Your task to perform on an android device: open app "Adobe Acrobat Reader: Edit PDF" (install if not already installed) Image 0: 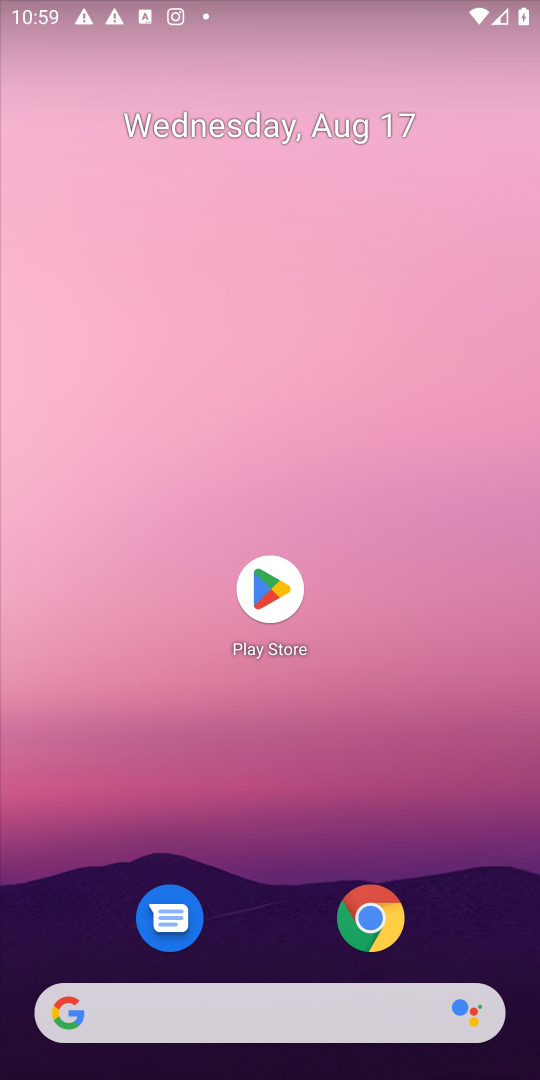
Step 0: press home button
Your task to perform on an android device: open app "Adobe Acrobat Reader: Edit PDF" (install if not already installed) Image 1: 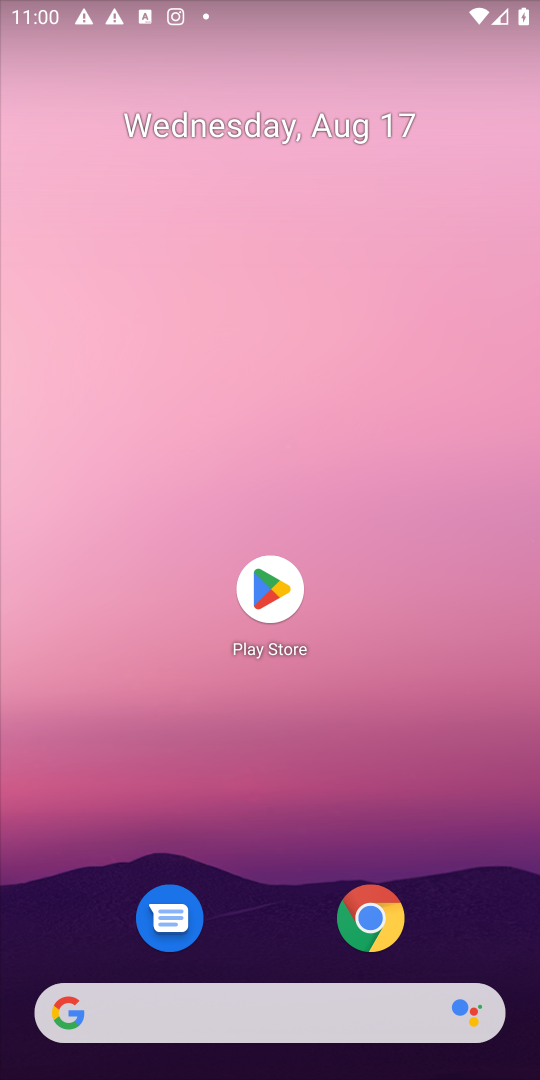
Step 1: click (264, 594)
Your task to perform on an android device: open app "Adobe Acrobat Reader: Edit PDF" (install if not already installed) Image 2: 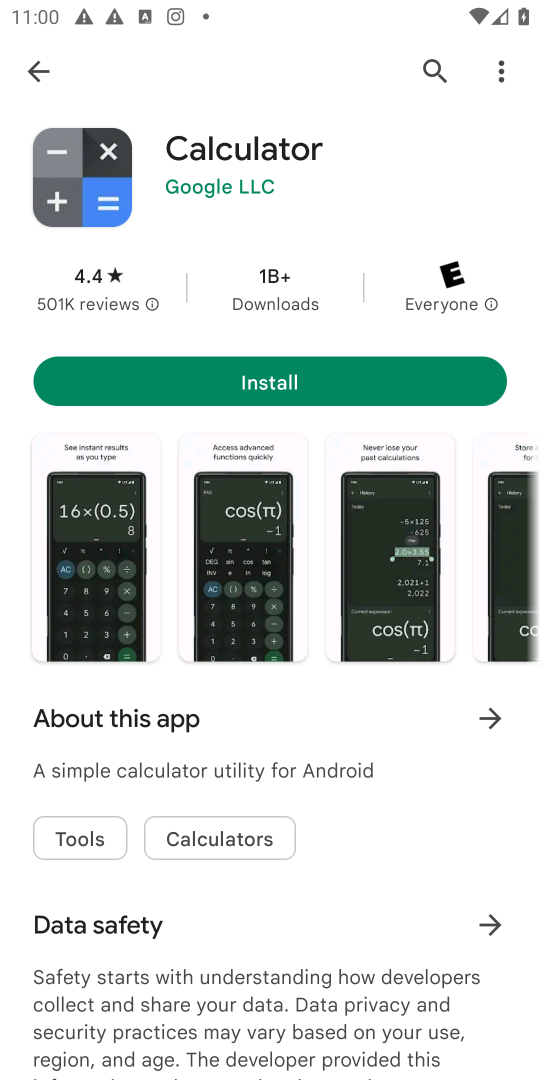
Step 2: click (429, 70)
Your task to perform on an android device: open app "Adobe Acrobat Reader: Edit PDF" (install if not already installed) Image 3: 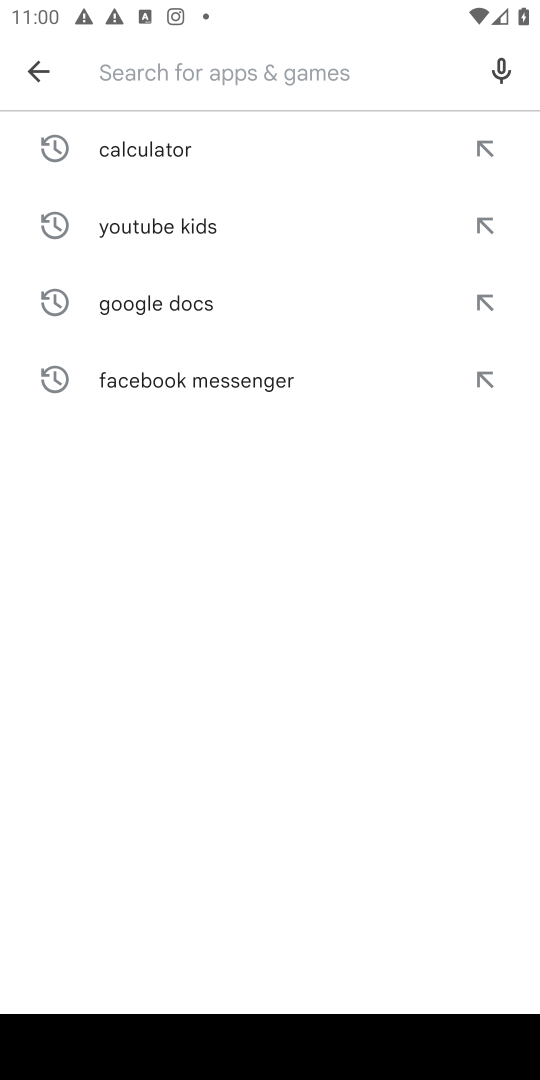
Step 3: type "Adobe Acrobat Reader: Edit PDF"
Your task to perform on an android device: open app "Adobe Acrobat Reader: Edit PDF" (install if not already installed) Image 4: 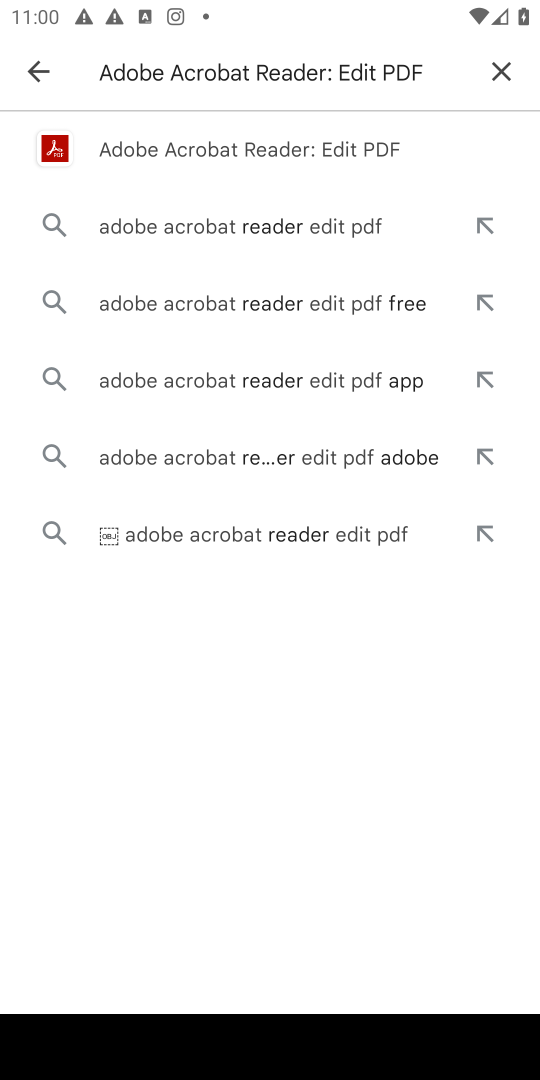
Step 4: click (228, 136)
Your task to perform on an android device: open app "Adobe Acrobat Reader: Edit PDF" (install if not already installed) Image 5: 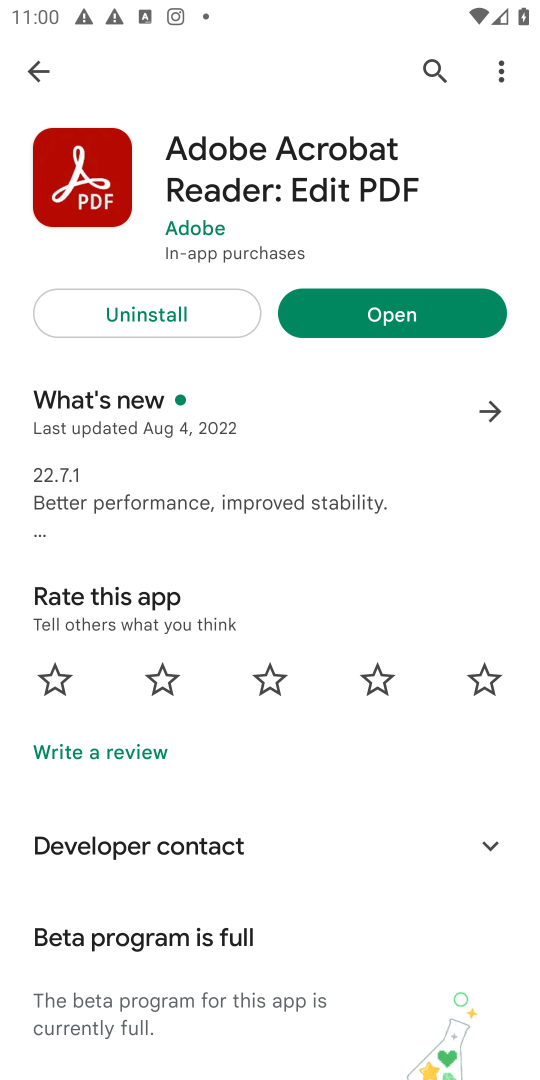
Step 5: click (414, 310)
Your task to perform on an android device: open app "Adobe Acrobat Reader: Edit PDF" (install if not already installed) Image 6: 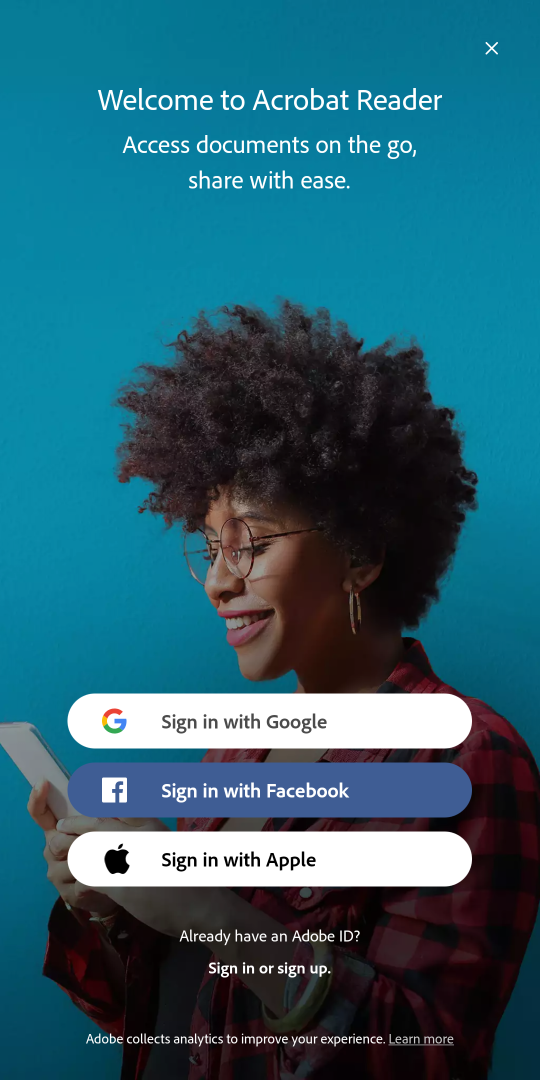
Step 6: task complete